Your task to perform on an android device: open a bookmark in the chrome app Image 0: 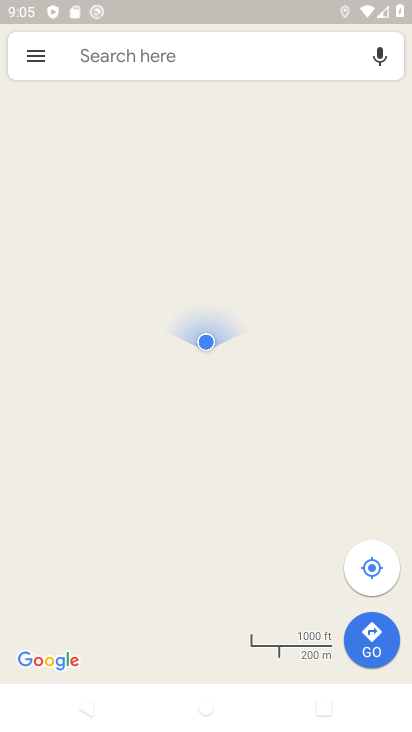
Step 0: press home button
Your task to perform on an android device: open a bookmark in the chrome app Image 1: 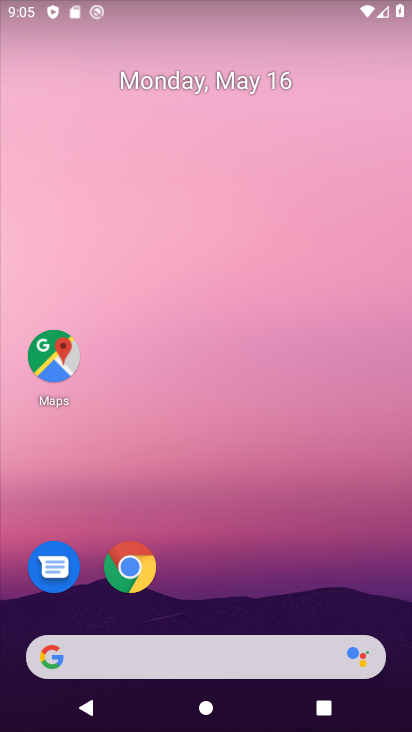
Step 1: click (133, 581)
Your task to perform on an android device: open a bookmark in the chrome app Image 2: 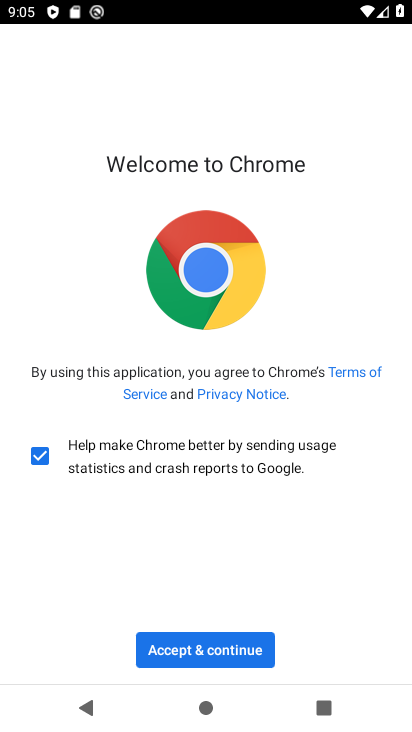
Step 2: click (176, 645)
Your task to perform on an android device: open a bookmark in the chrome app Image 3: 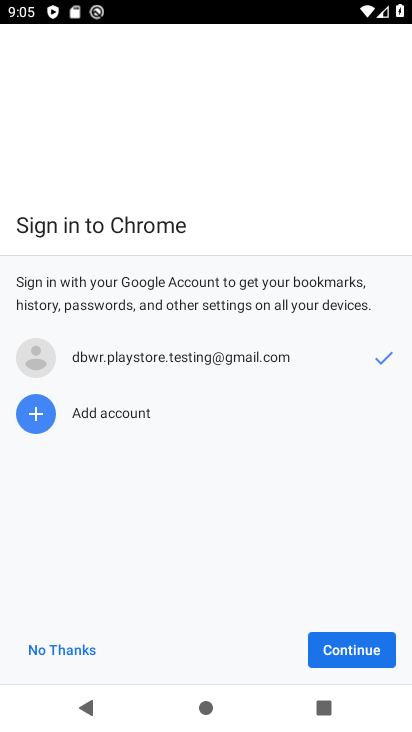
Step 3: click (345, 641)
Your task to perform on an android device: open a bookmark in the chrome app Image 4: 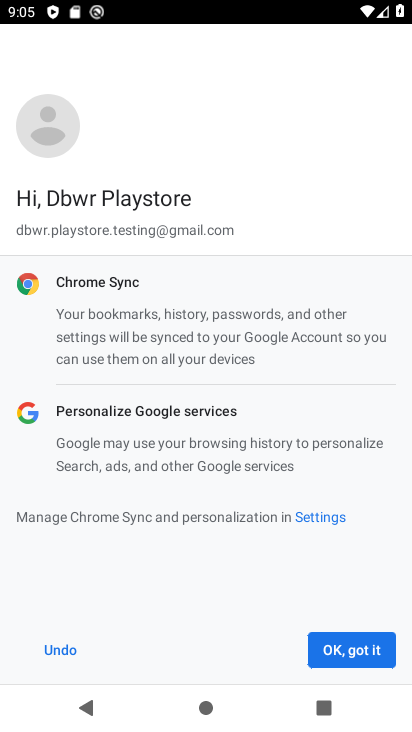
Step 4: click (345, 641)
Your task to perform on an android device: open a bookmark in the chrome app Image 5: 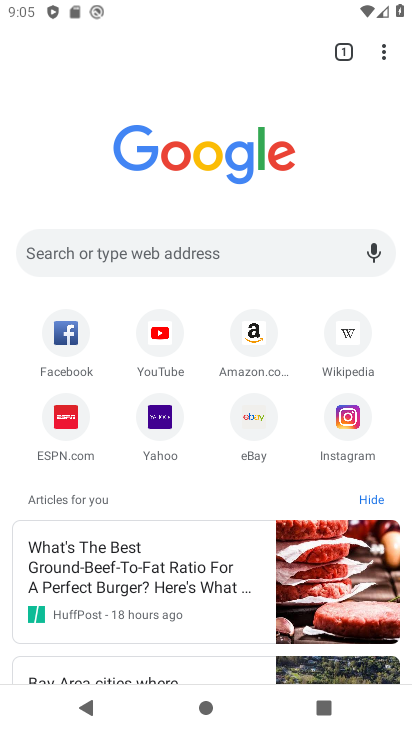
Step 5: click (382, 58)
Your task to perform on an android device: open a bookmark in the chrome app Image 6: 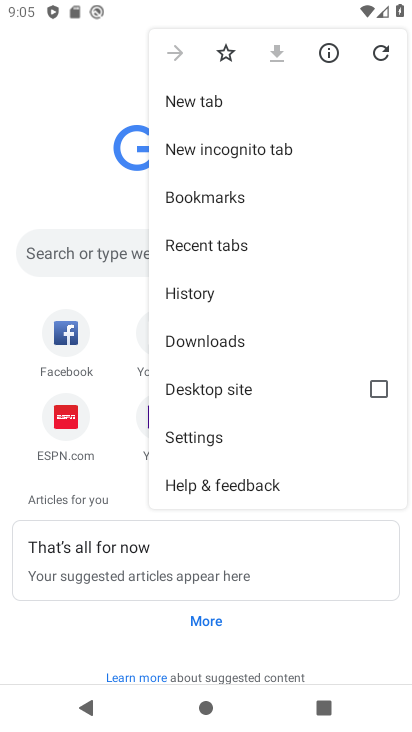
Step 6: click (217, 191)
Your task to perform on an android device: open a bookmark in the chrome app Image 7: 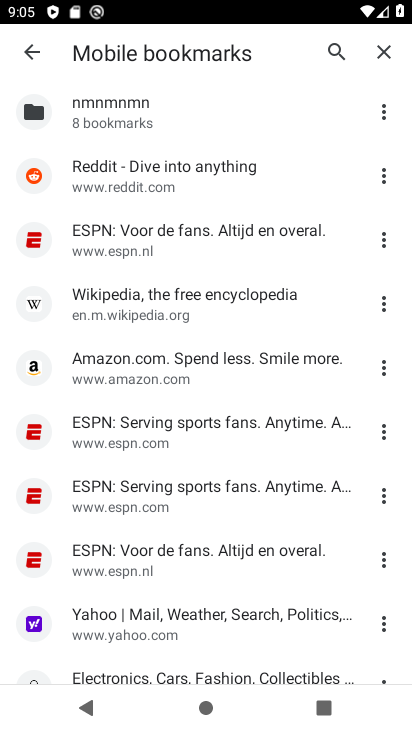
Step 7: task complete